Your task to perform on an android device: see tabs open on other devices in the chrome app Image 0: 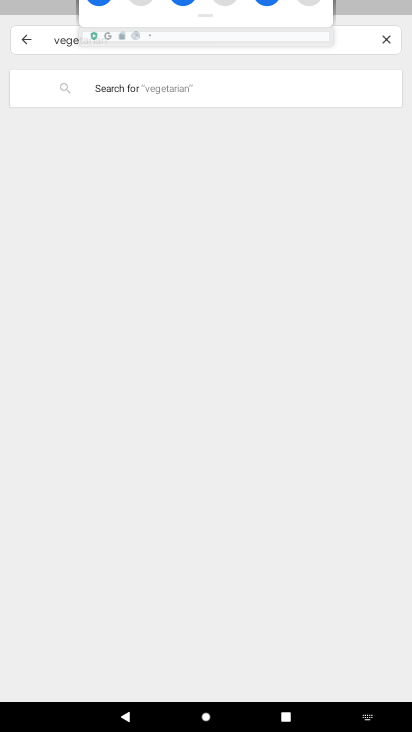
Step 0: press home button
Your task to perform on an android device: see tabs open on other devices in the chrome app Image 1: 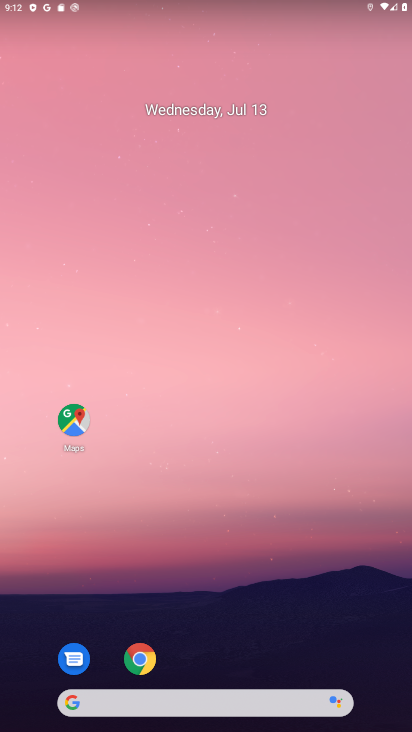
Step 1: click (143, 667)
Your task to perform on an android device: see tabs open on other devices in the chrome app Image 2: 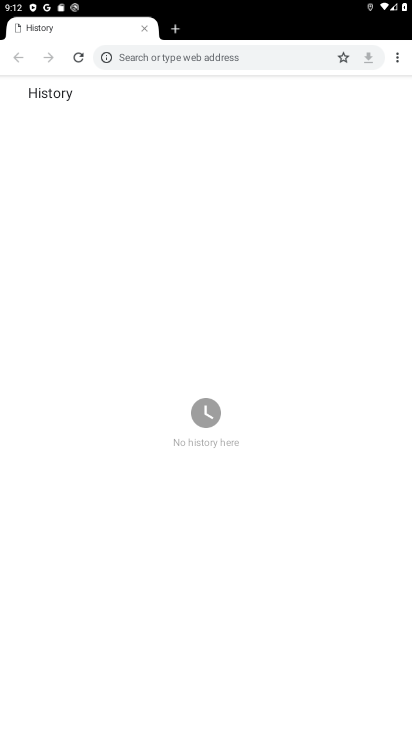
Step 2: click (401, 57)
Your task to perform on an android device: see tabs open on other devices in the chrome app Image 3: 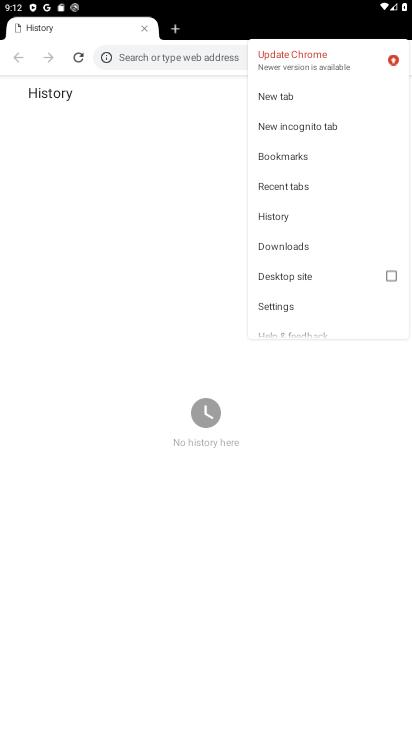
Step 3: click (295, 183)
Your task to perform on an android device: see tabs open on other devices in the chrome app Image 4: 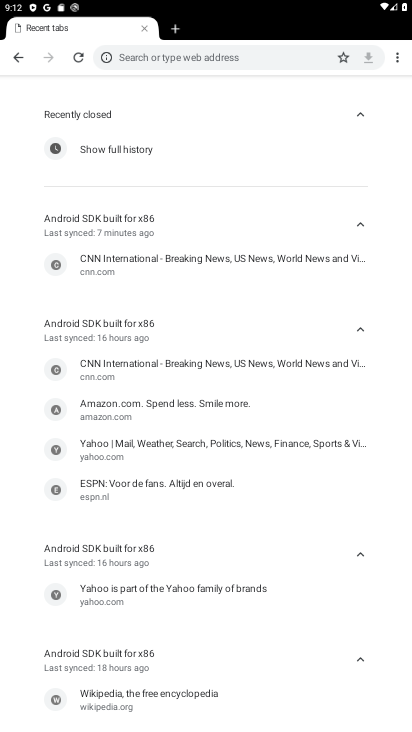
Step 4: task complete